Your task to perform on an android device: Open settings Image 0: 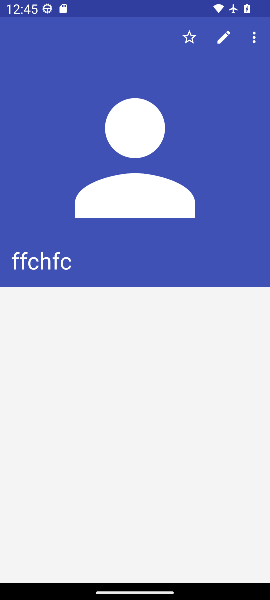
Step 0: drag from (126, 452) to (132, 297)
Your task to perform on an android device: Open settings Image 1: 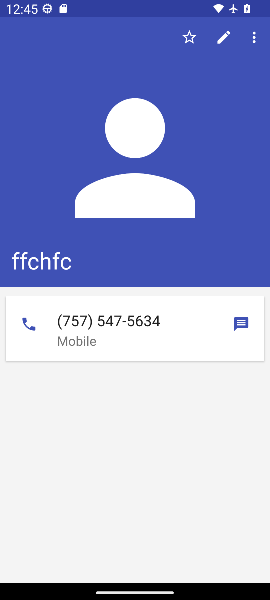
Step 1: press home button
Your task to perform on an android device: Open settings Image 2: 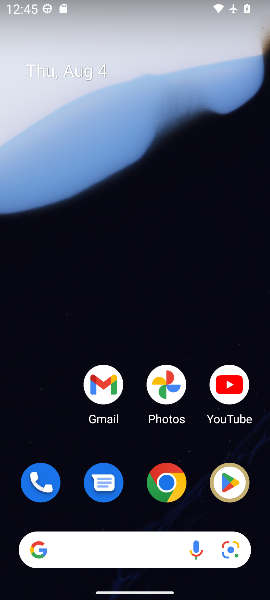
Step 2: drag from (112, 452) to (120, 153)
Your task to perform on an android device: Open settings Image 3: 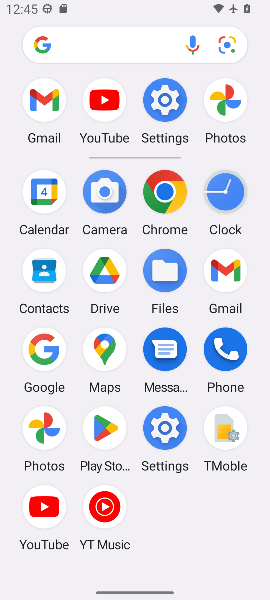
Step 3: click (166, 98)
Your task to perform on an android device: Open settings Image 4: 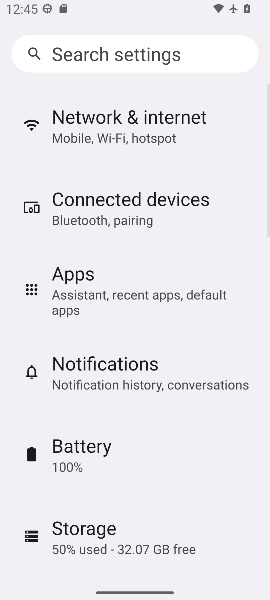
Step 4: task complete